Your task to perform on an android device: Go to display settings Image 0: 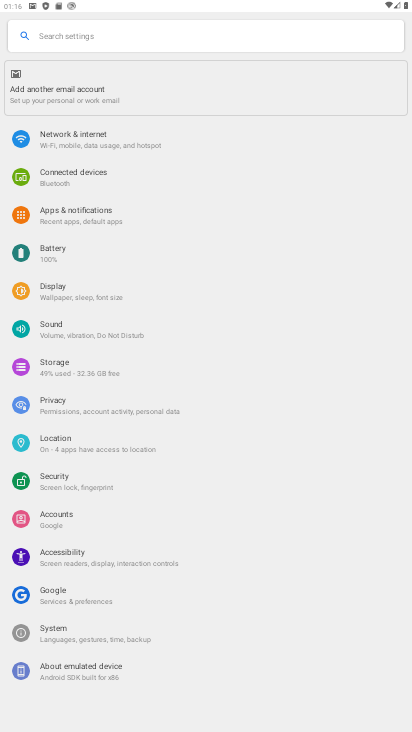
Step 0: click (70, 292)
Your task to perform on an android device: Go to display settings Image 1: 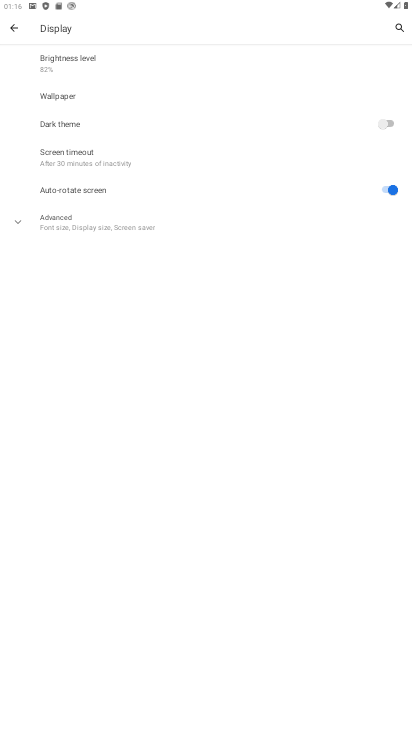
Step 1: task complete